Your task to perform on an android device: turn pop-ups off in chrome Image 0: 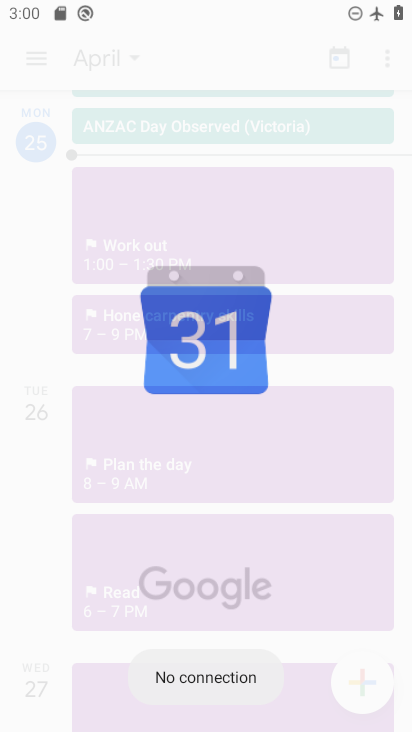
Step 0: drag from (272, 688) to (131, 119)
Your task to perform on an android device: turn pop-ups off in chrome Image 1: 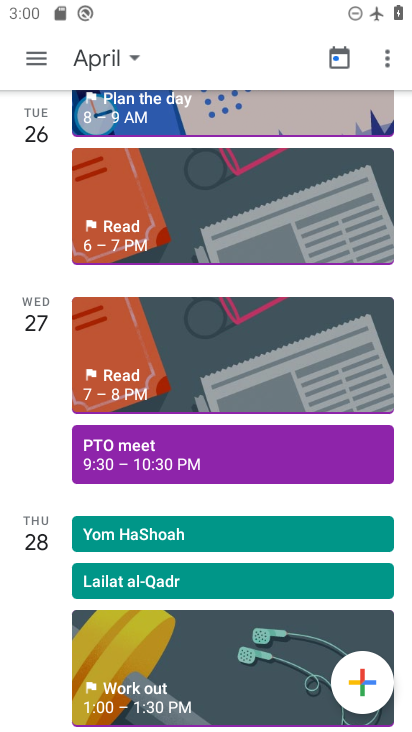
Step 1: press home button
Your task to perform on an android device: turn pop-ups off in chrome Image 2: 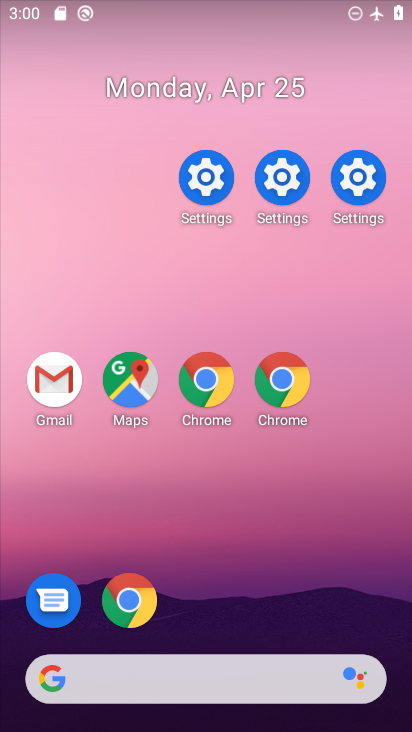
Step 2: drag from (266, 627) to (149, 49)
Your task to perform on an android device: turn pop-ups off in chrome Image 3: 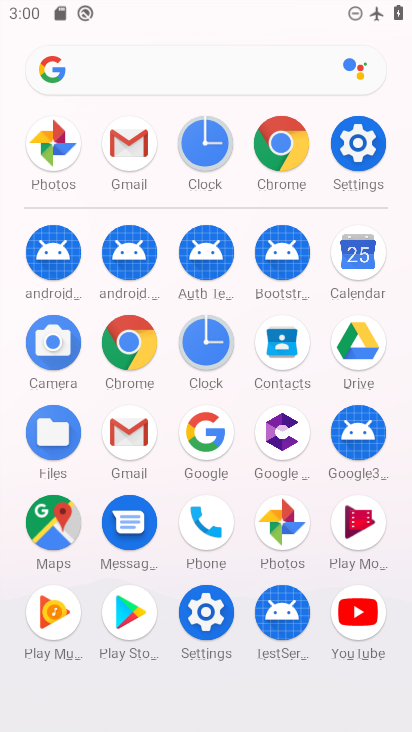
Step 3: click (283, 141)
Your task to perform on an android device: turn pop-ups off in chrome Image 4: 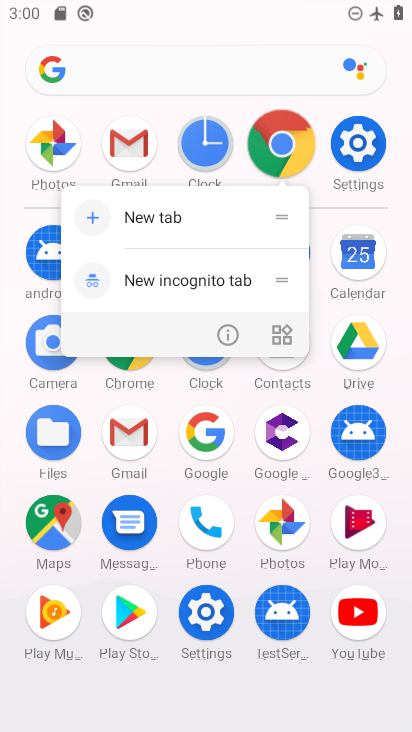
Step 4: click (283, 141)
Your task to perform on an android device: turn pop-ups off in chrome Image 5: 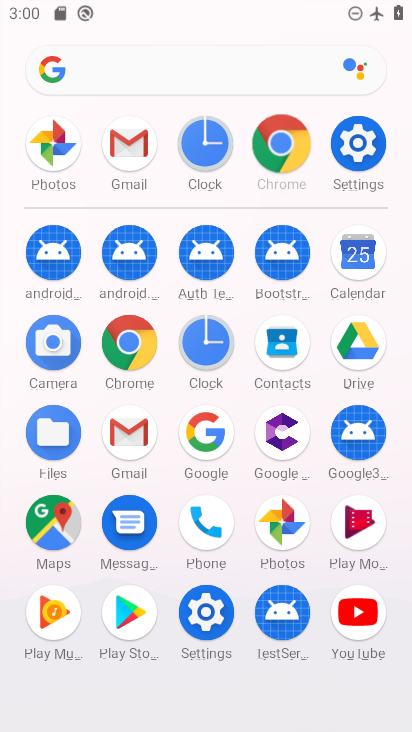
Step 5: click (283, 141)
Your task to perform on an android device: turn pop-ups off in chrome Image 6: 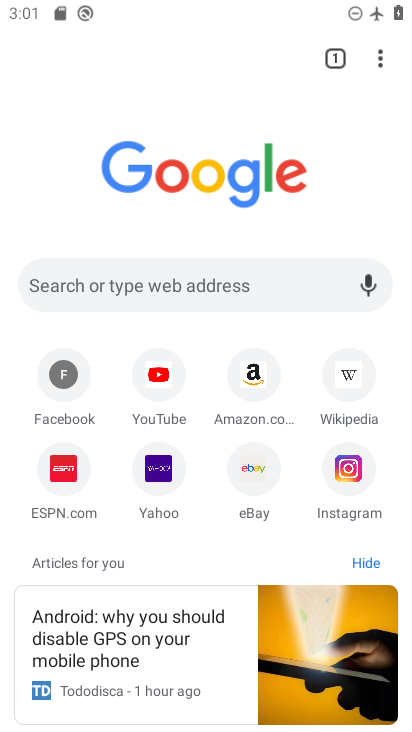
Step 6: drag from (375, 57) to (168, 539)
Your task to perform on an android device: turn pop-ups off in chrome Image 7: 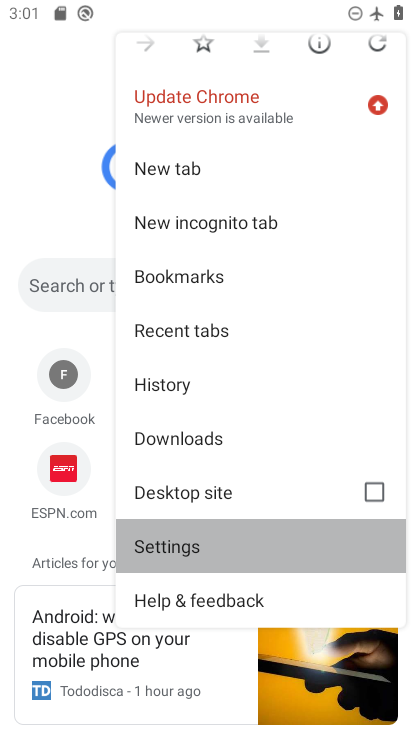
Step 7: click (170, 536)
Your task to perform on an android device: turn pop-ups off in chrome Image 8: 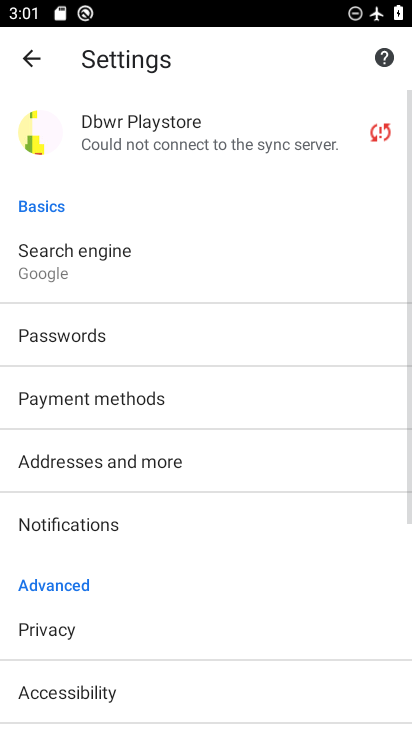
Step 8: drag from (161, 500) to (103, 90)
Your task to perform on an android device: turn pop-ups off in chrome Image 9: 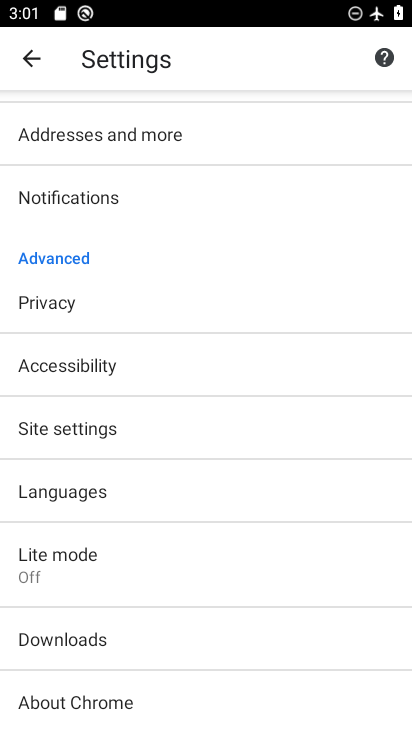
Step 9: click (58, 429)
Your task to perform on an android device: turn pop-ups off in chrome Image 10: 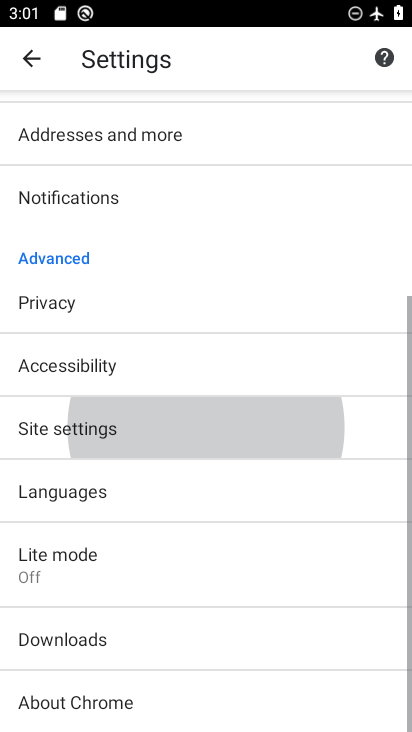
Step 10: click (58, 429)
Your task to perform on an android device: turn pop-ups off in chrome Image 11: 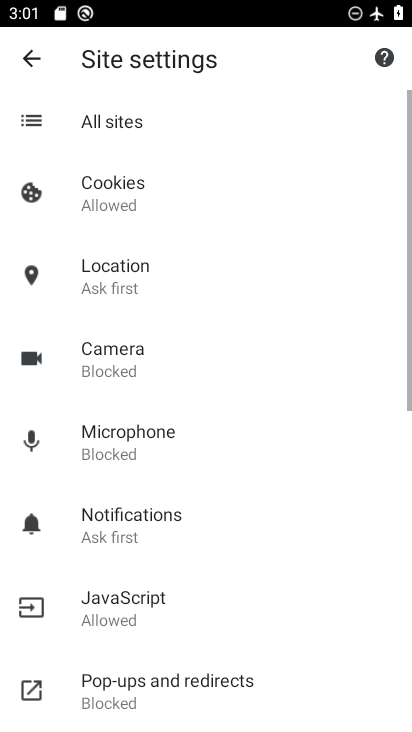
Step 11: click (57, 434)
Your task to perform on an android device: turn pop-ups off in chrome Image 12: 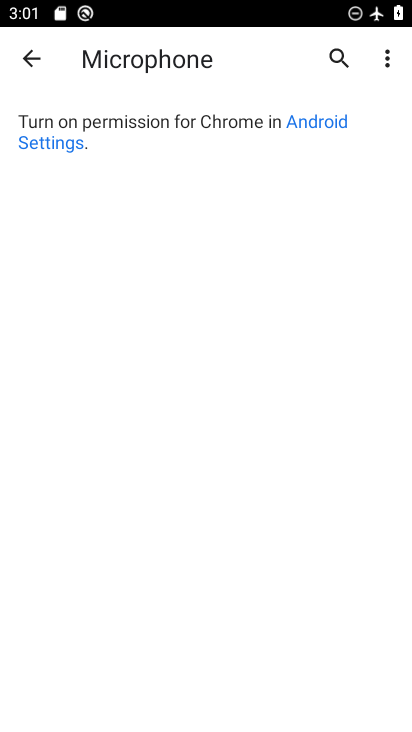
Step 12: click (26, 57)
Your task to perform on an android device: turn pop-ups off in chrome Image 13: 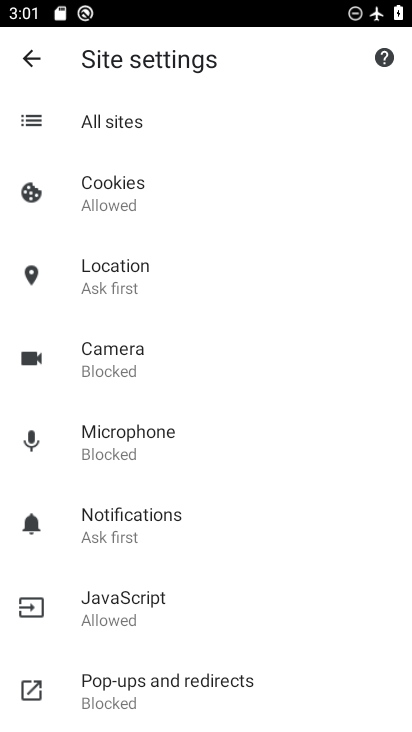
Step 13: click (127, 685)
Your task to perform on an android device: turn pop-ups off in chrome Image 14: 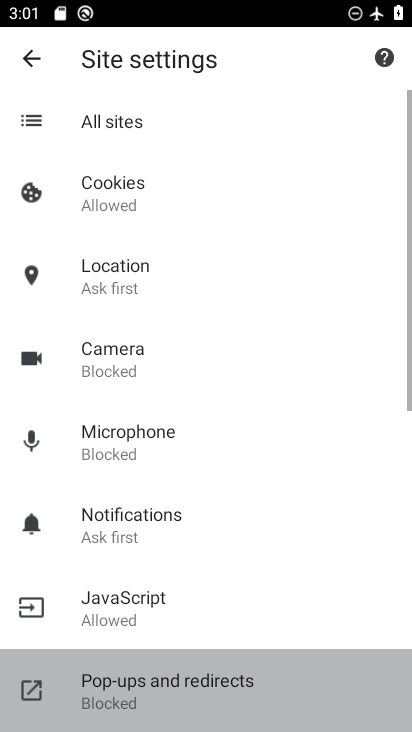
Step 14: click (124, 688)
Your task to perform on an android device: turn pop-ups off in chrome Image 15: 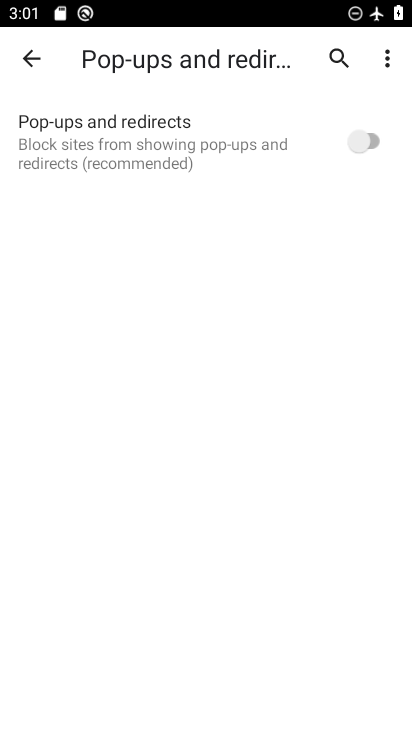
Step 15: click (364, 142)
Your task to perform on an android device: turn pop-ups off in chrome Image 16: 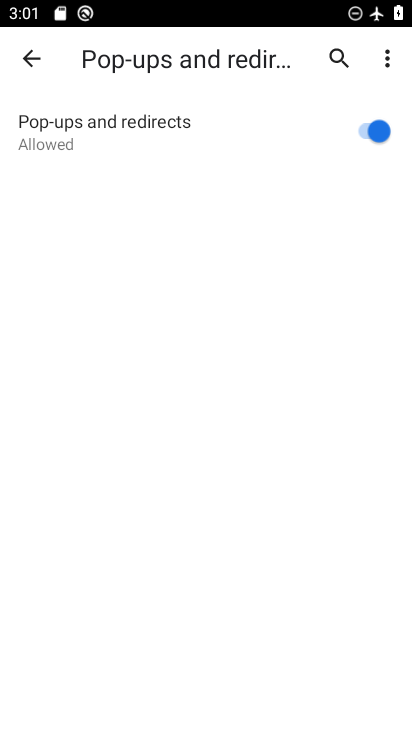
Step 16: click (378, 133)
Your task to perform on an android device: turn pop-ups off in chrome Image 17: 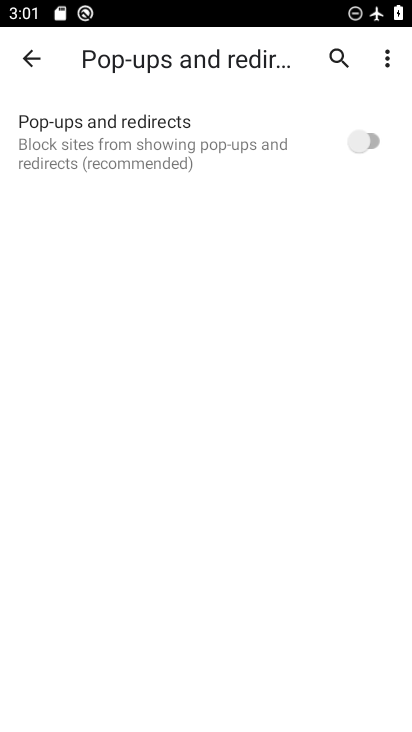
Step 17: task complete